Your task to perform on an android device: add a contact Image 0: 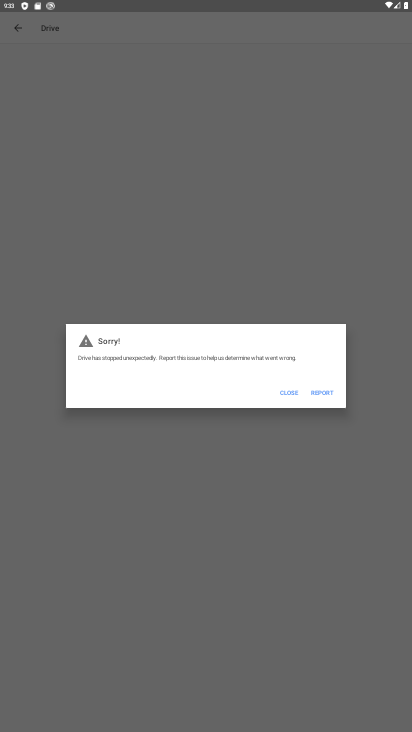
Step 0: press home button
Your task to perform on an android device: add a contact Image 1: 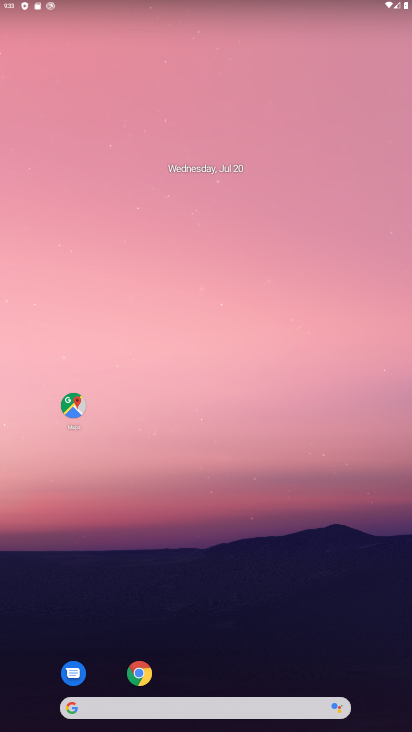
Step 1: drag from (276, 666) to (246, 177)
Your task to perform on an android device: add a contact Image 2: 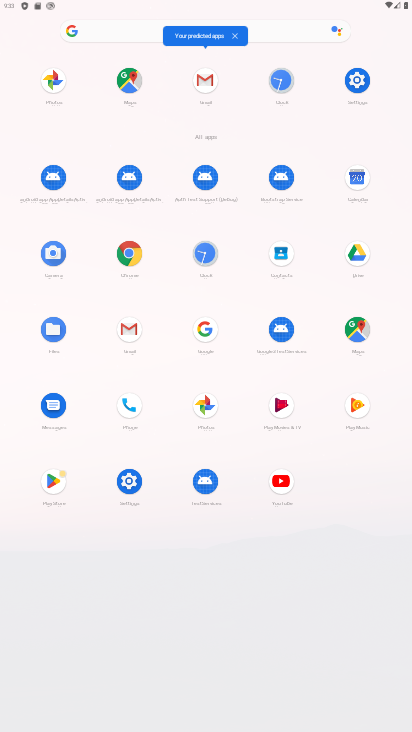
Step 2: click (278, 257)
Your task to perform on an android device: add a contact Image 3: 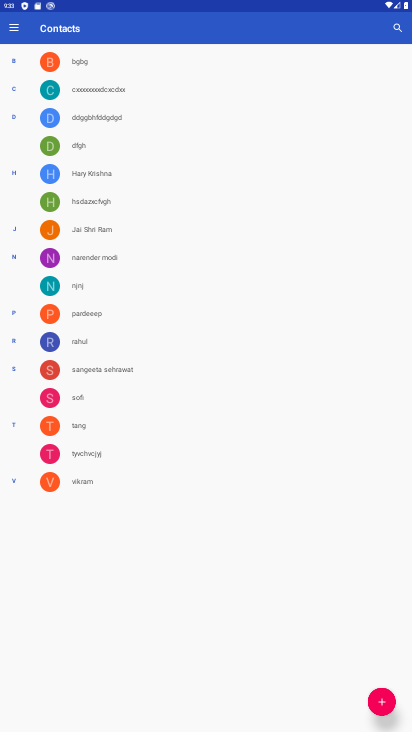
Step 3: click (383, 696)
Your task to perform on an android device: add a contact Image 4: 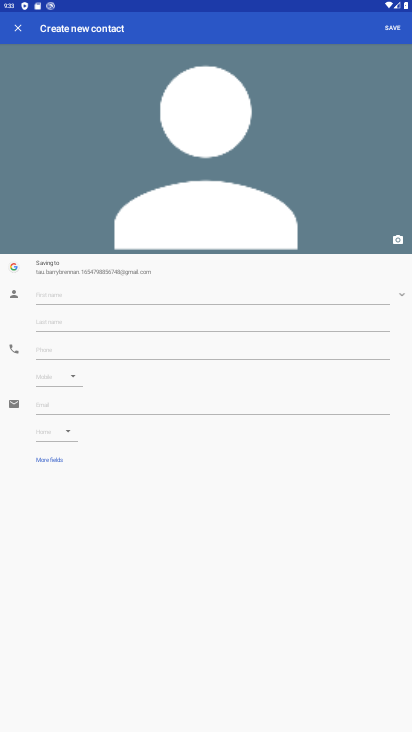
Step 4: click (148, 293)
Your task to perform on an android device: add a contact Image 5: 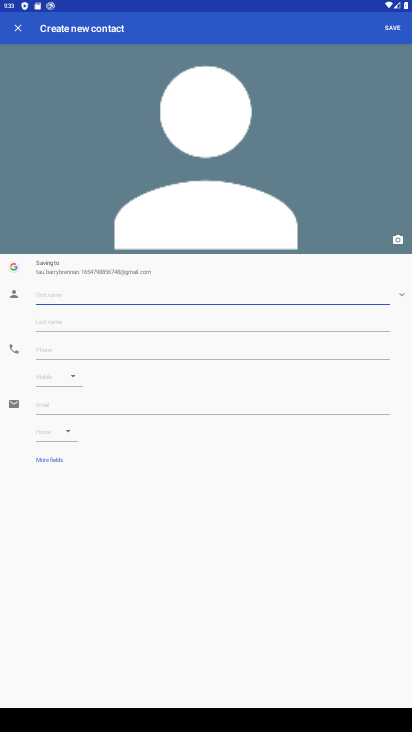
Step 5: type "ghjgjhjh"
Your task to perform on an android device: add a contact Image 6: 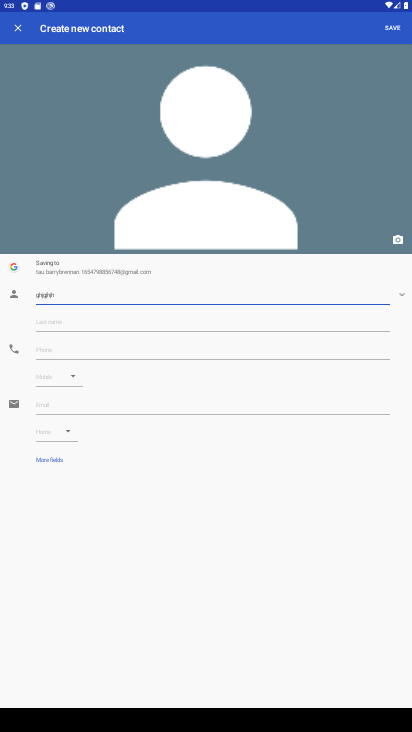
Step 6: click (73, 316)
Your task to perform on an android device: add a contact Image 7: 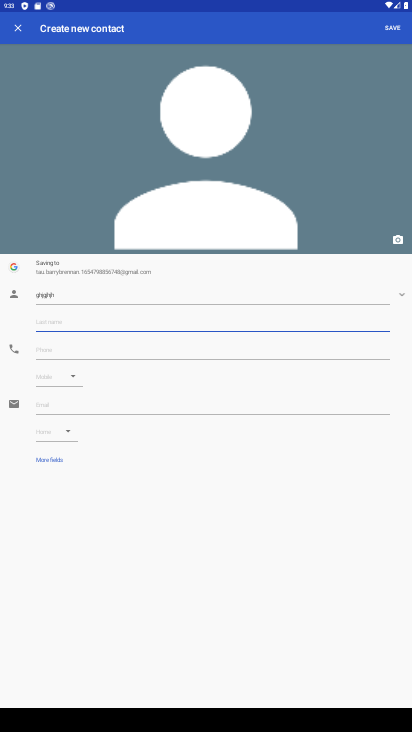
Step 7: type "9879878"
Your task to perform on an android device: add a contact Image 8: 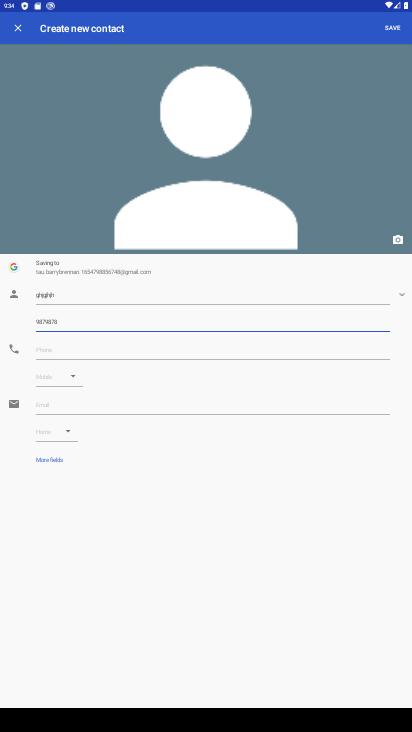
Step 8: click (398, 38)
Your task to perform on an android device: add a contact Image 9: 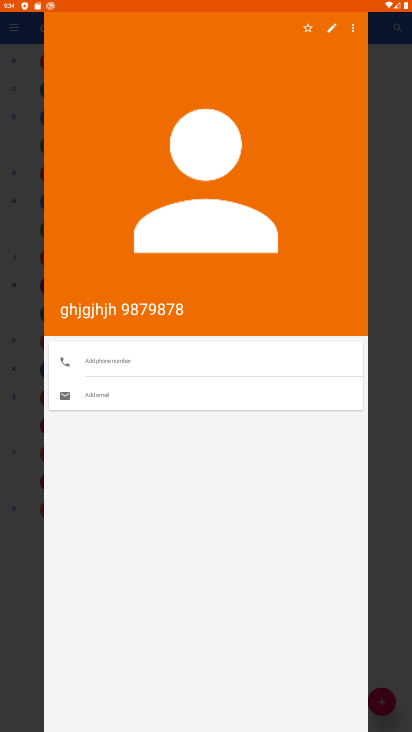
Step 9: task complete